Your task to perform on an android device: Open Google Maps and go to "Timeline" Image 0: 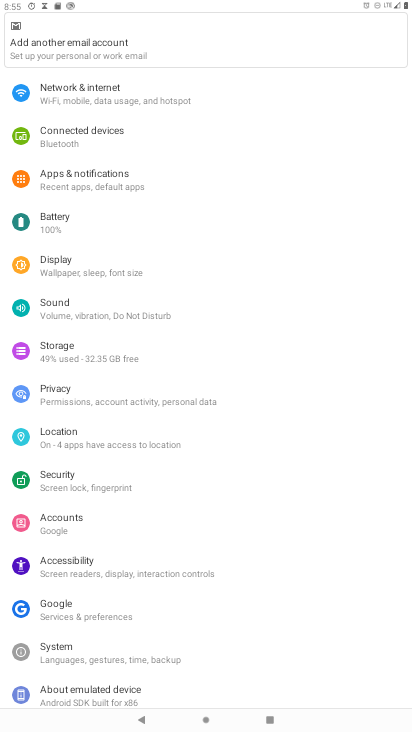
Step 0: press home button
Your task to perform on an android device: Open Google Maps and go to "Timeline" Image 1: 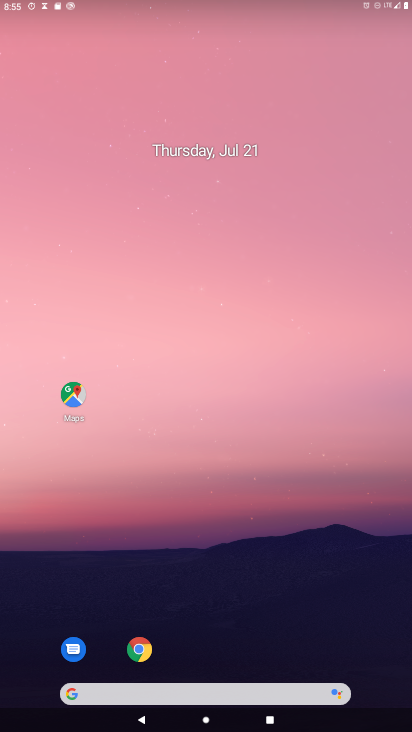
Step 1: drag from (376, 663) to (209, 50)
Your task to perform on an android device: Open Google Maps and go to "Timeline" Image 2: 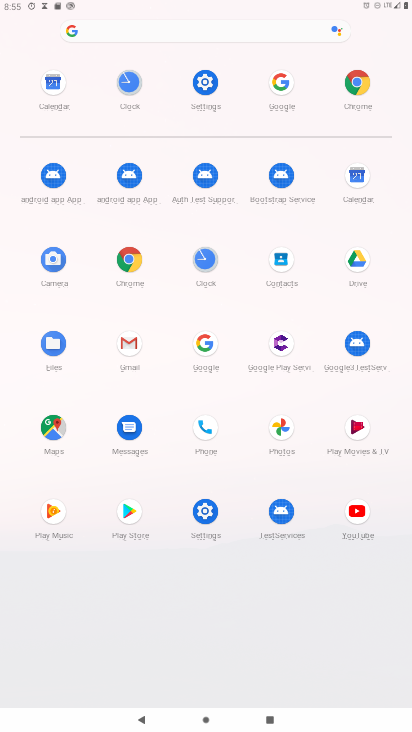
Step 2: click (54, 433)
Your task to perform on an android device: Open Google Maps and go to "Timeline" Image 3: 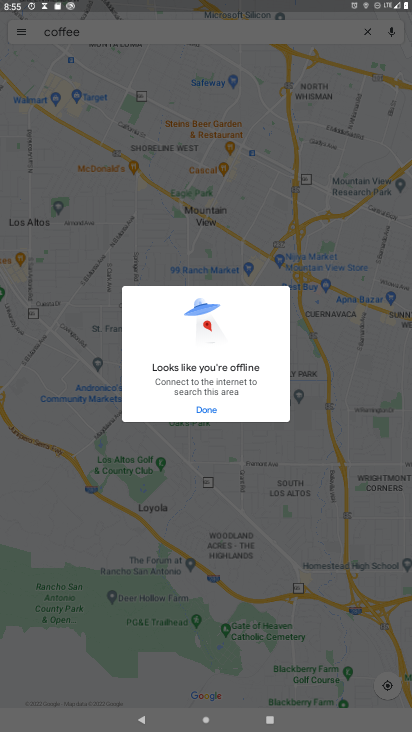
Step 3: press back button
Your task to perform on an android device: Open Google Maps and go to "Timeline" Image 4: 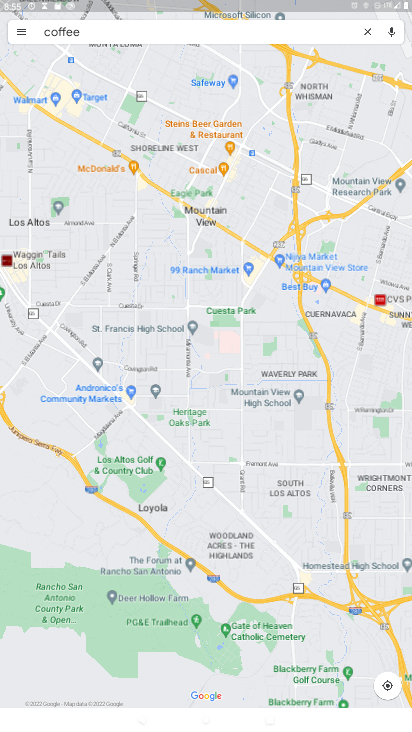
Step 4: click (363, 27)
Your task to perform on an android device: Open Google Maps and go to "Timeline" Image 5: 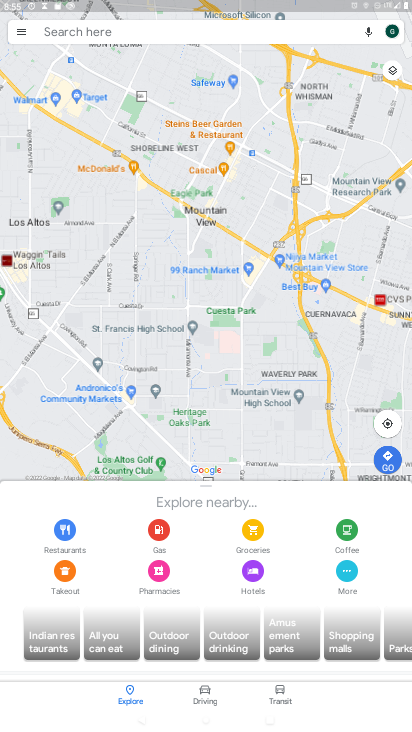
Step 5: click (12, 31)
Your task to perform on an android device: Open Google Maps and go to "Timeline" Image 6: 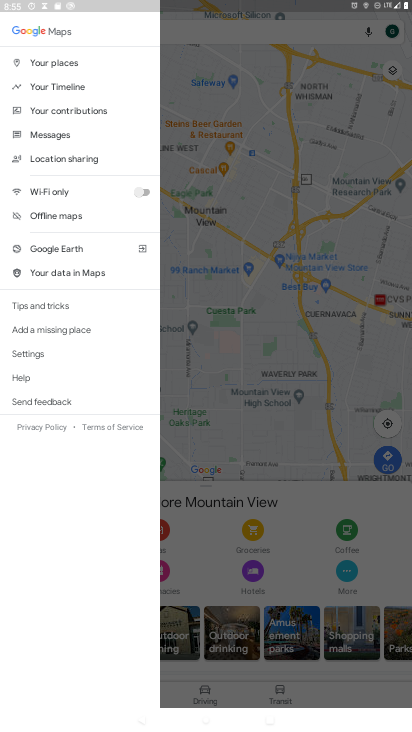
Step 6: click (42, 91)
Your task to perform on an android device: Open Google Maps and go to "Timeline" Image 7: 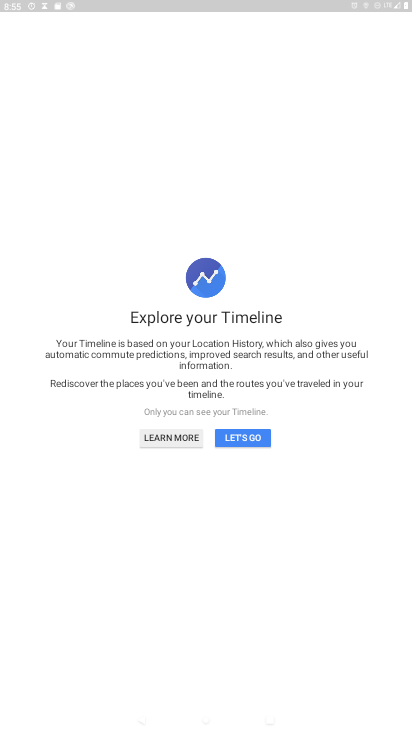
Step 7: task complete